Your task to perform on an android device: turn pop-ups on in chrome Image 0: 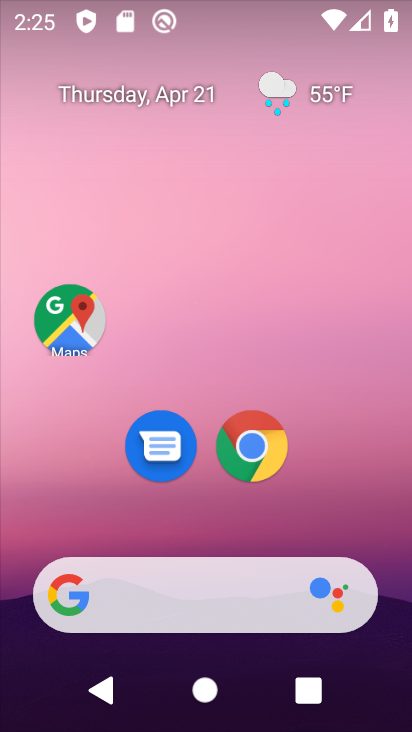
Step 0: click (253, 443)
Your task to perform on an android device: turn pop-ups on in chrome Image 1: 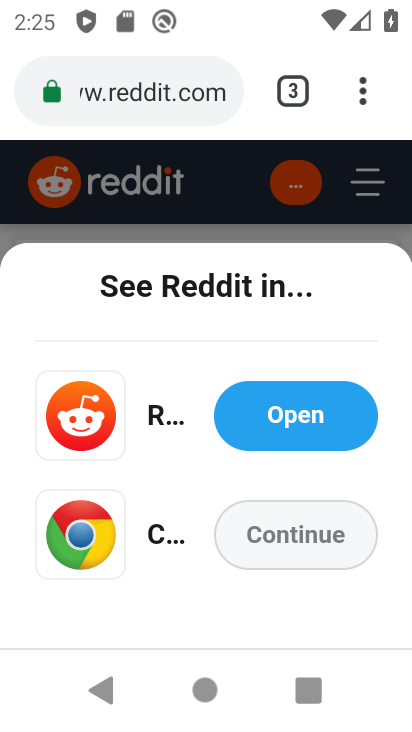
Step 1: drag from (362, 93) to (133, 446)
Your task to perform on an android device: turn pop-ups on in chrome Image 2: 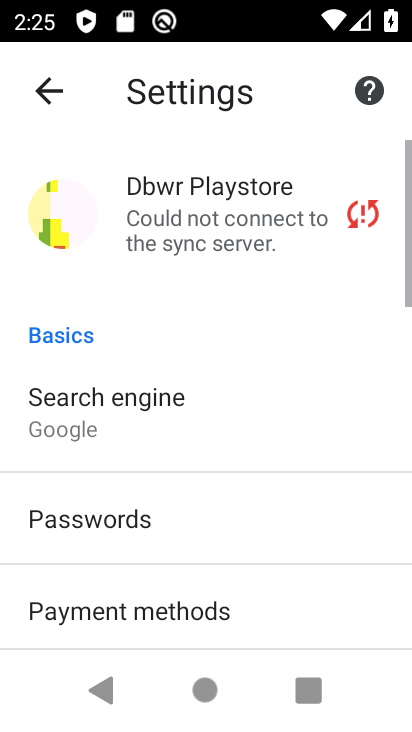
Step 2: drag from (168, 628) to (178, 245)
Your task to perform on an android device: turn pop-ups on in chrome Image 3: 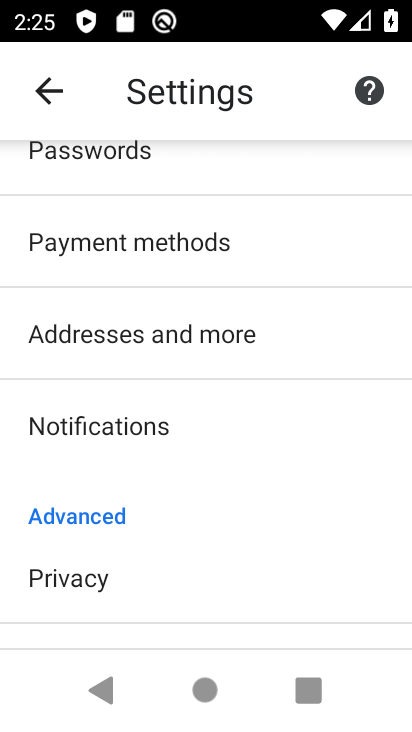
Step 3: drag from (192, 599) to (168, 265)
Your task to perform on an android device: turn pop-ups on in chrome Image 4: 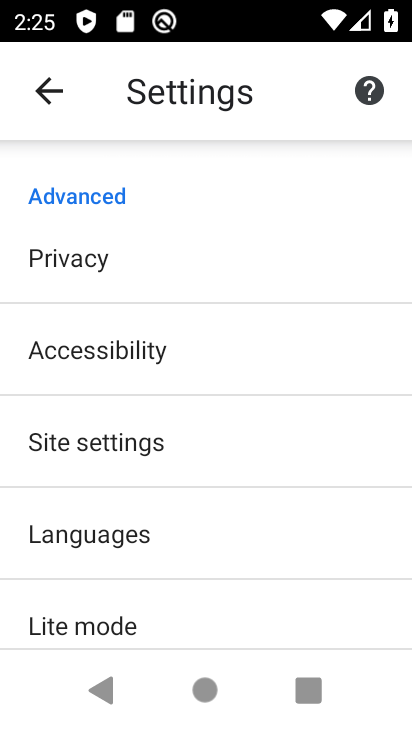
Step 4: click (129, 438)
Your task to perform on an android device: turn pop-ups on in chrome Image 5: 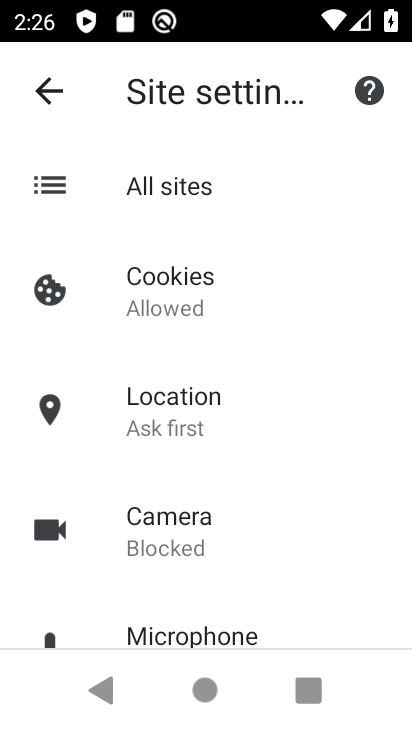
Step 5: drag from (210, 597) to (235, 242)
Your task to perform on an android device: turn pop-ups on in chrome Image 6: 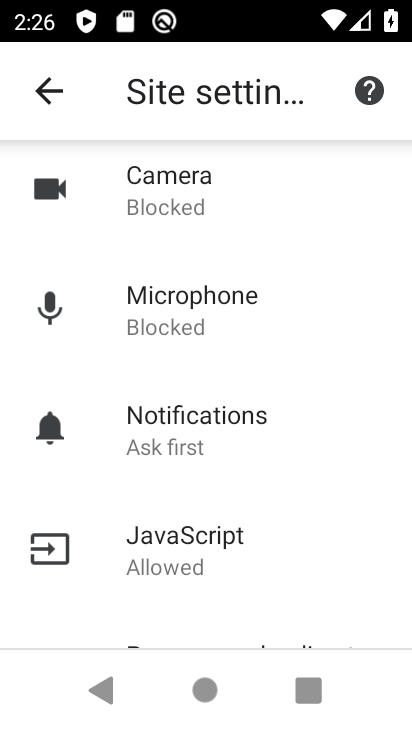
Step 6: drag from (234, 630) to (205, 286)
Your task to perform on an android device: turn pop-ups on in chrome Image 7: 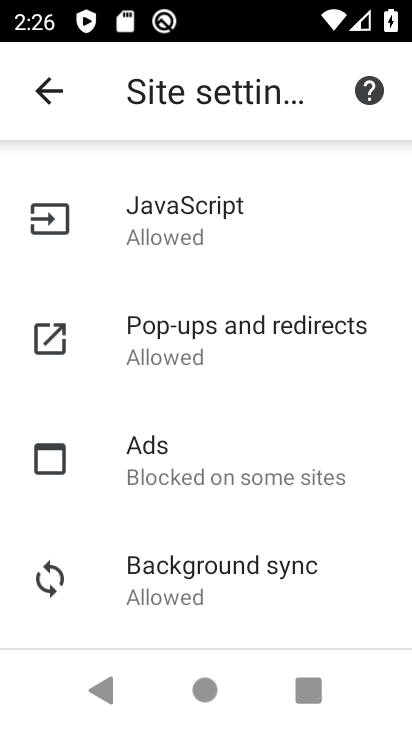
Step 7: click (209, 335)
Your task to perform on an android device: turn pop-ups on in chrome Image 8: 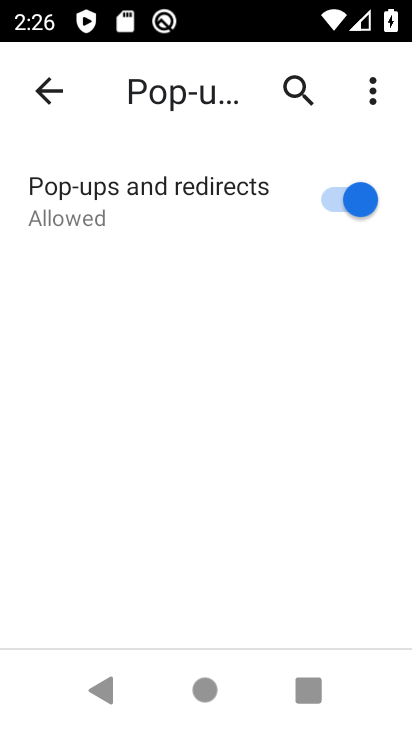
Step 8: task complete